Your task to perform on an android device: open app "Pinterest" Image 0: 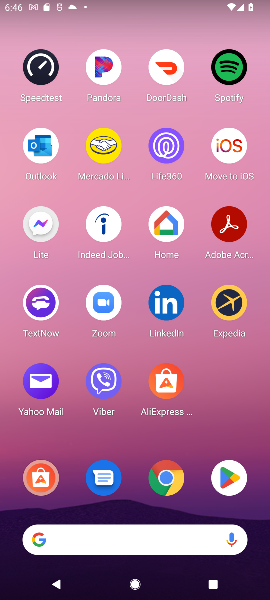
Step 0: press home button
Your task to perform on an android device: open app "Pinterest" Image 1: 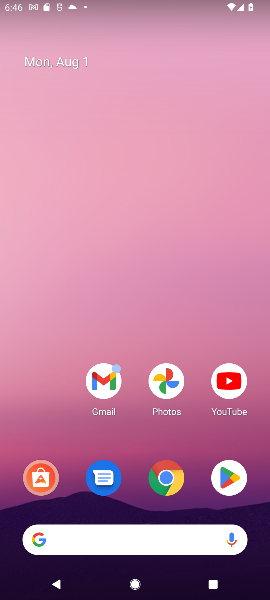
Step 1: click (219, 479)
Your task to perform on an android device: open app "Pinterest" Image 2: 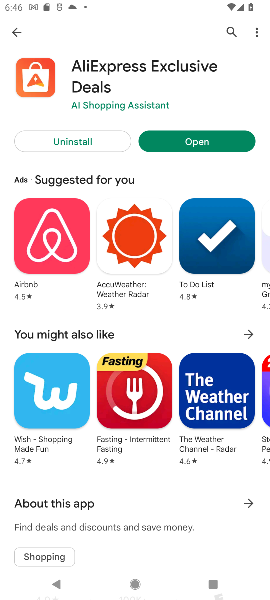
Step 2: click (235, 36)
Your task to perform on an android device: open app "Pinterest" Image 3: 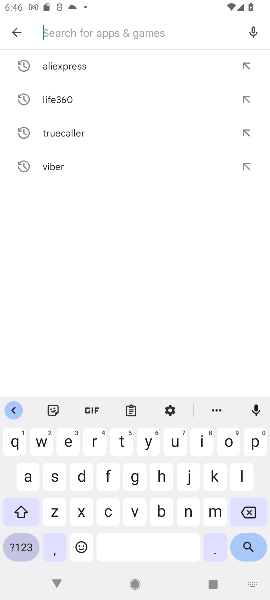
Step 3: click (258, 447)
Your task to perform on an android device: open app "Pinterest" Image 4: 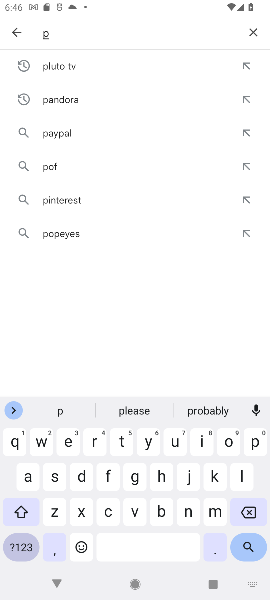
Step 4: click (203, 443)
Your task to perform on an android device: open app "Pinterest" Image 5: 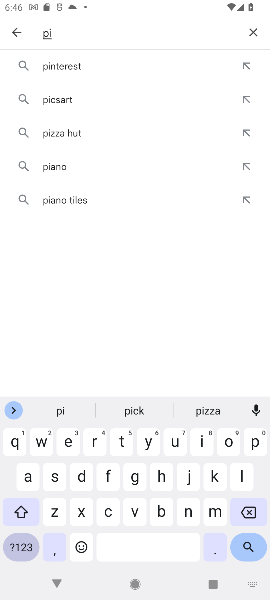
Step 5: click (63, 69)
Your task to perform on an android device: open app "Pinterest" Image 6: 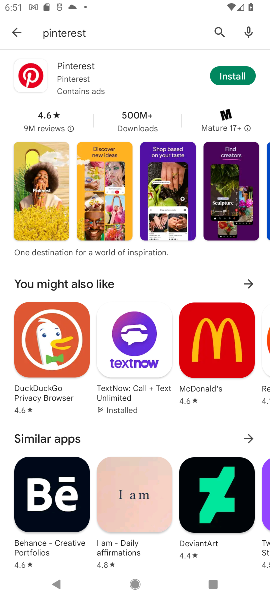
Step 6: task complete